Your task to perform on an android device: Open Google Chrome Image 0: 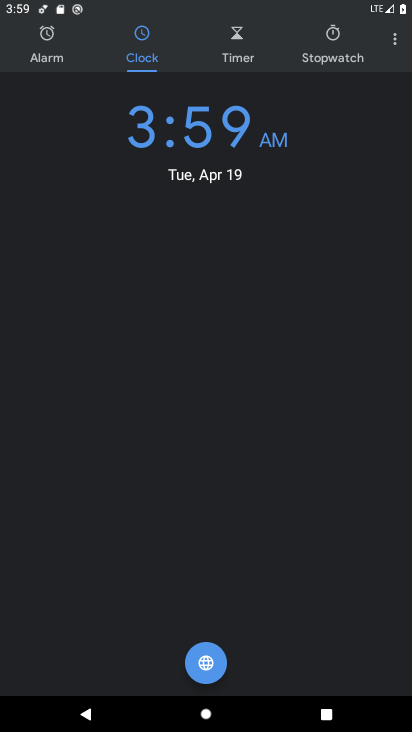
Step 0: press home button
Your task to perform on an android device: Open Google Chrome Image 1: 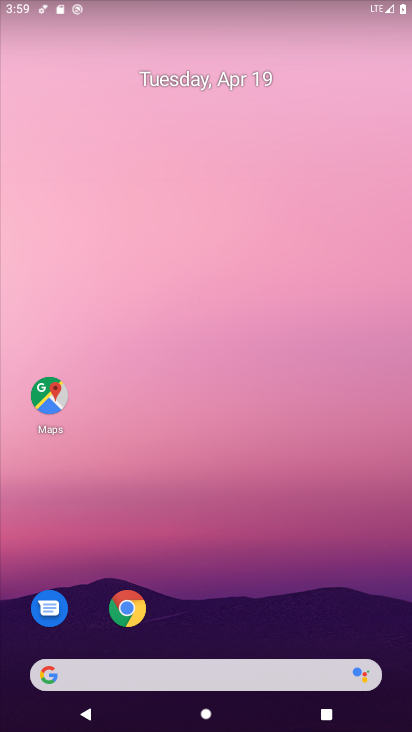
Step 1: drag from (296, 560) to (197, 51)
Your task to perform on an android device: Open Google Chrome Image 2: 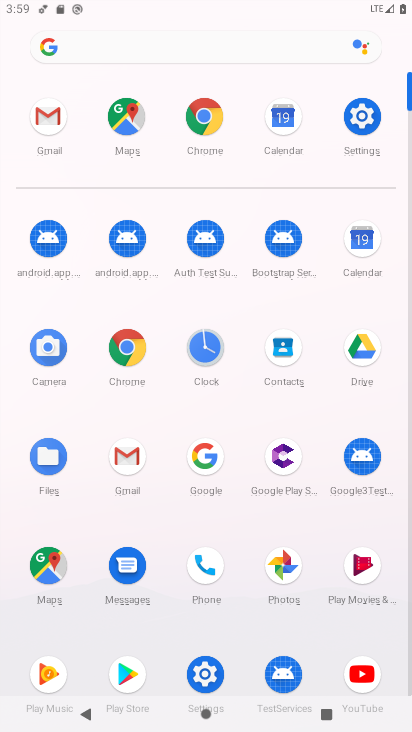
Step 2: click (209, 116)
Your task to perform on an android device: Open Google Chrome Image 3: 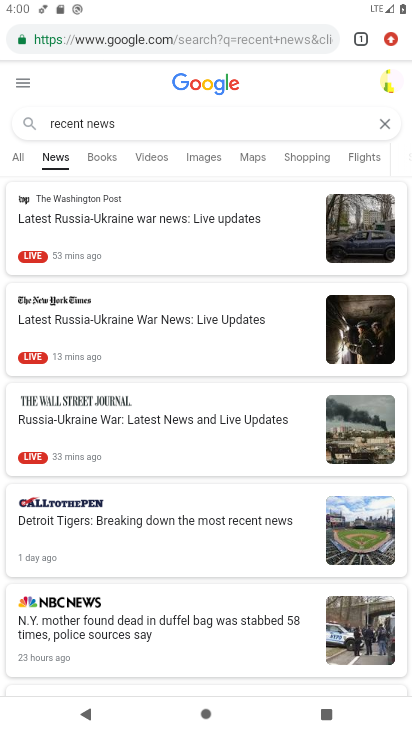
Step 3: task complete